Your task to perform on an android device: Go to CNN.com Image 0: 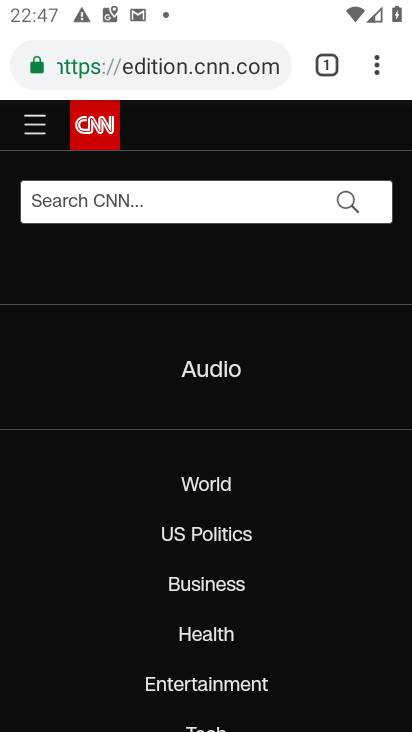
Step 0: task complete